Your task to perform on an android device: all mails in gmail Image 0: 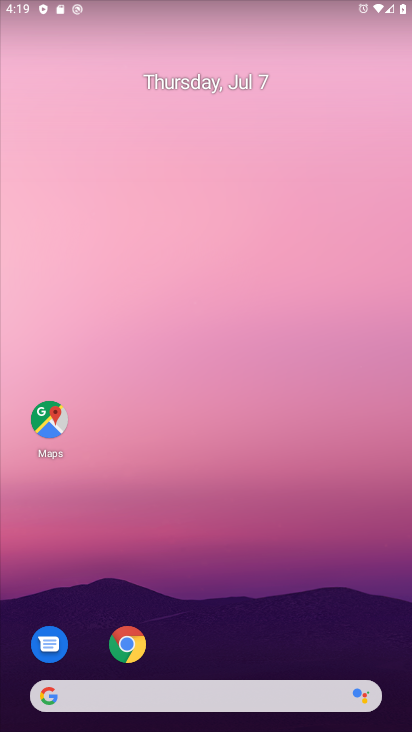
Step 0: drag from (248, 643) to (295, 182)
Your task to perform on an android device: all mails in gmail Image 1: 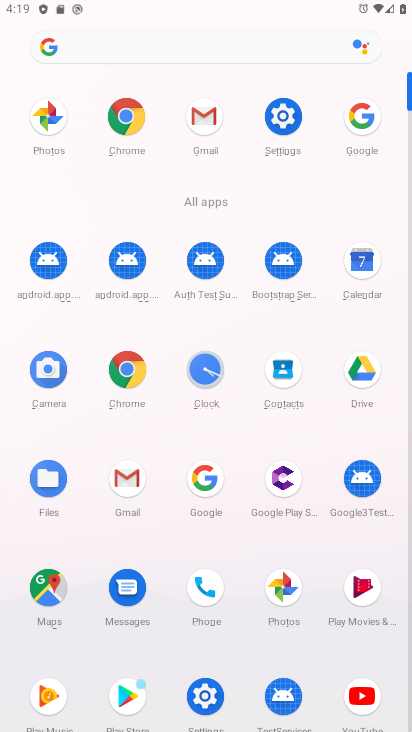
Step 1: click (205, 115)
Your task to perform on an android device: all mails in gmail Image 2: 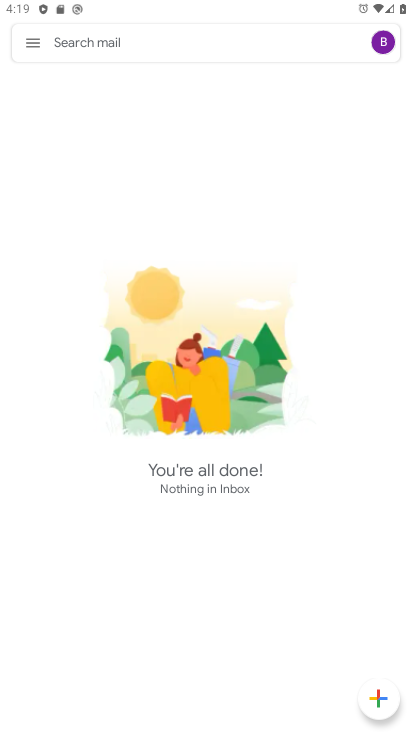
Step 2: click (33, 44)
Your task to perform on an android device: all mails in gmail Image 3: 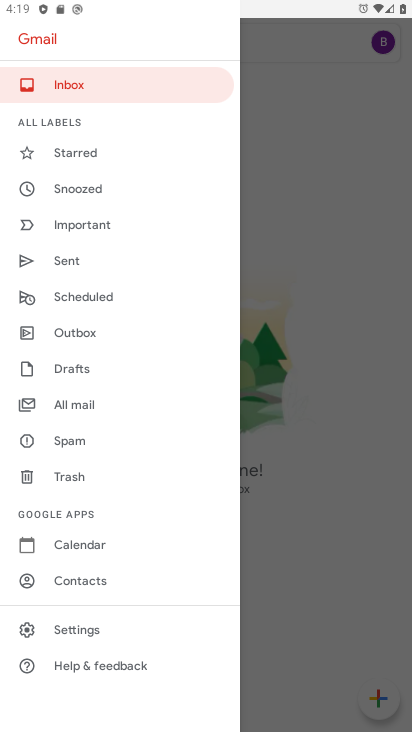
Step 3: click (77, 399)
Your task to perform on an android device: all mails in gmail Image 4: 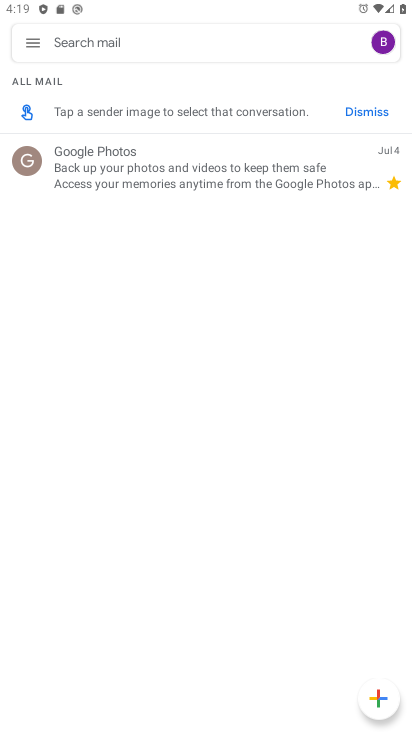
Step 4: task complete